Your task to perform on an android device: see sites visited before in the chrome app Image 0: 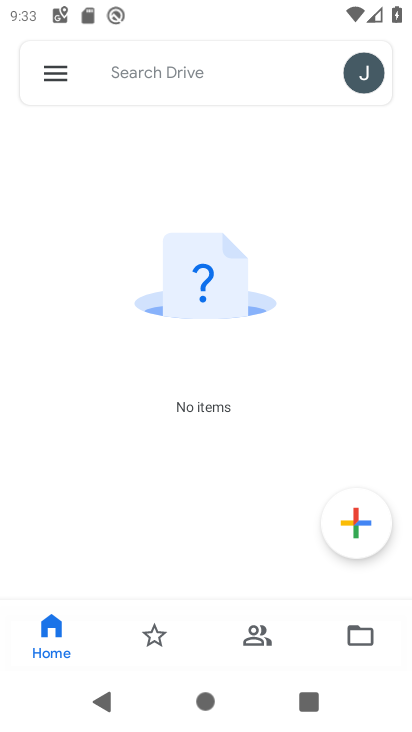
Step 0: press home button
Your task to perform on an android device: see sites visited before in the chrome app Image 1: 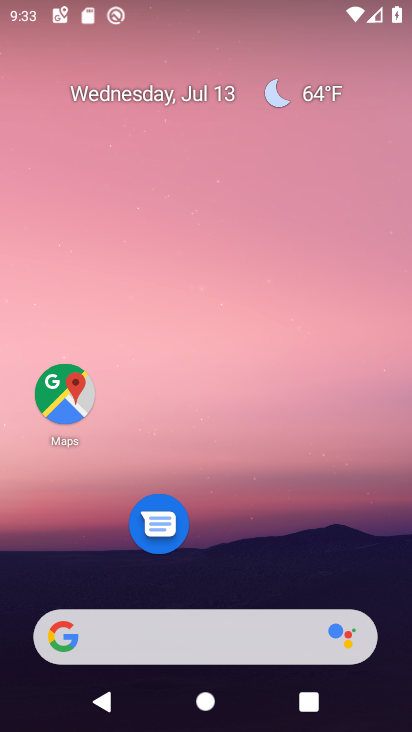
Step 1: drag from (257, 581) to (263, 45)
Your task to perform on an android device: see sites visited before in the chrome app Image 2: 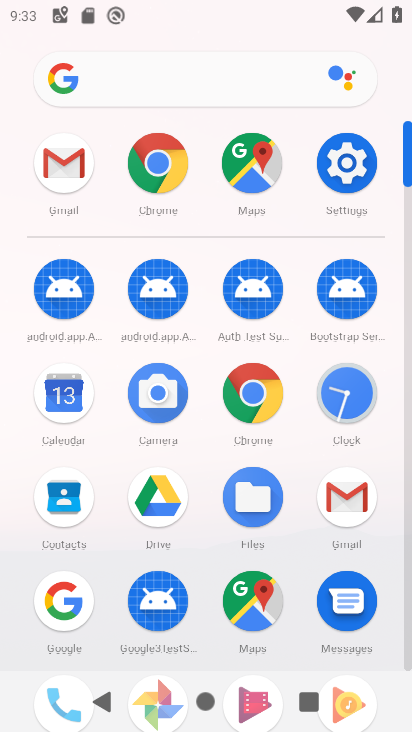
Step 2: click (267, 387)
Your task to perform on an android device: see sites visited before in the chrome app Image 3: 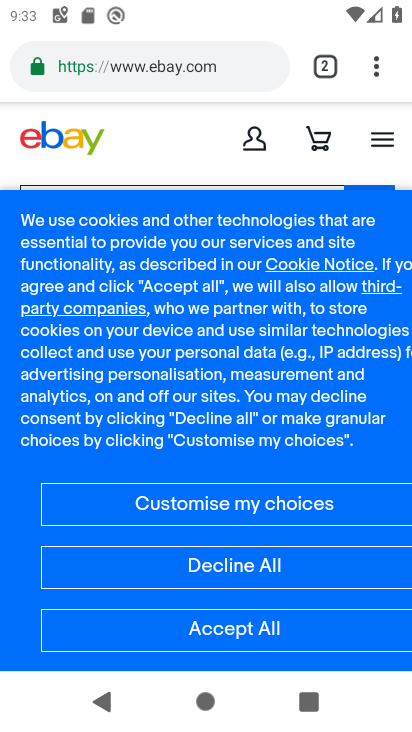
Step 3: click (337, 61)
Your task to perform on an android device: see sites visited before in the chrome app Image 4: 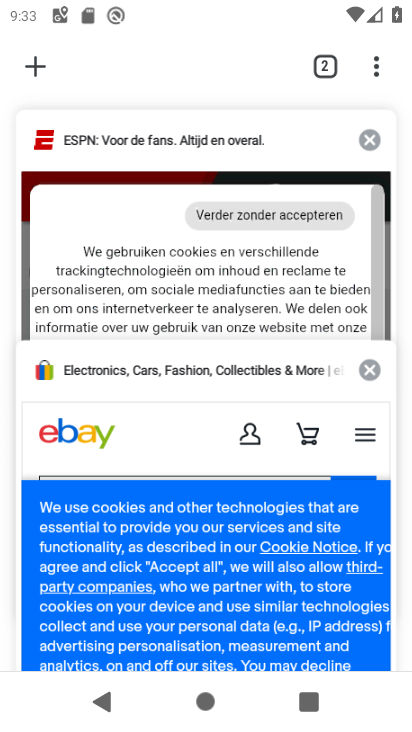
Step 4: task complete